Your task to perform on an android device: open wifi settings Image 0: 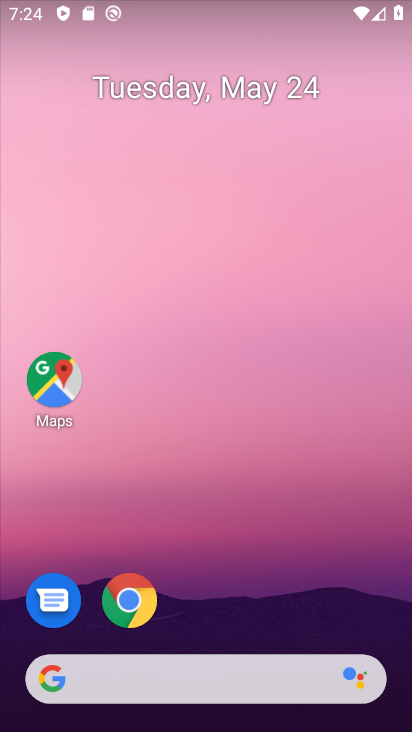
Step 0: drag from (98, 32) to (166, 528)
Your task to perform on an android device: open wifi settings Image 1: 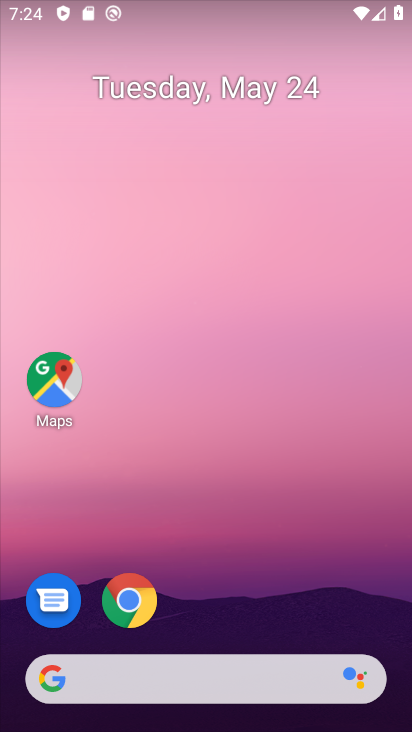
Step 1: drag from (65, 5) to (125, 470)
Your task to perform on an android device: open wifi settings Image 2: 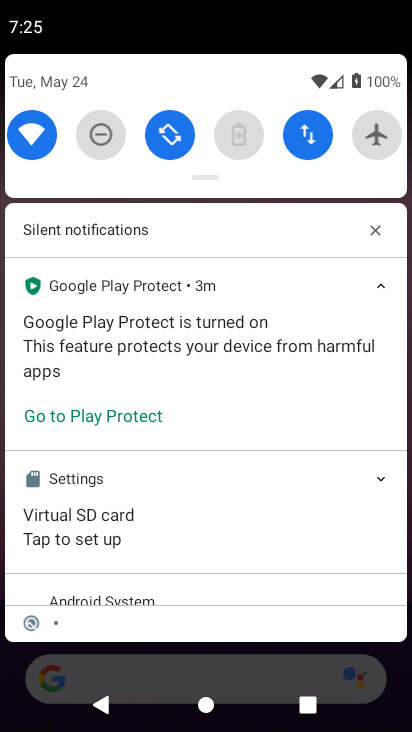
Step 2: click (39, 125)
Your task to perform on an android device: open wifi settings Image 3: 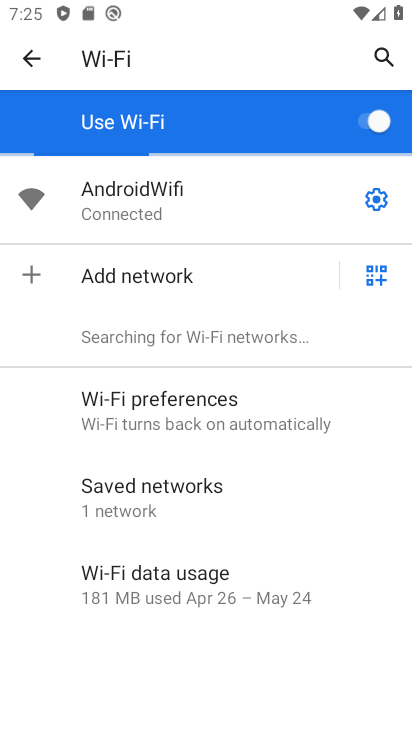
Step 3: task complete